Your task to perform on an android device: Play the last video I watched on Youtube Image 0: 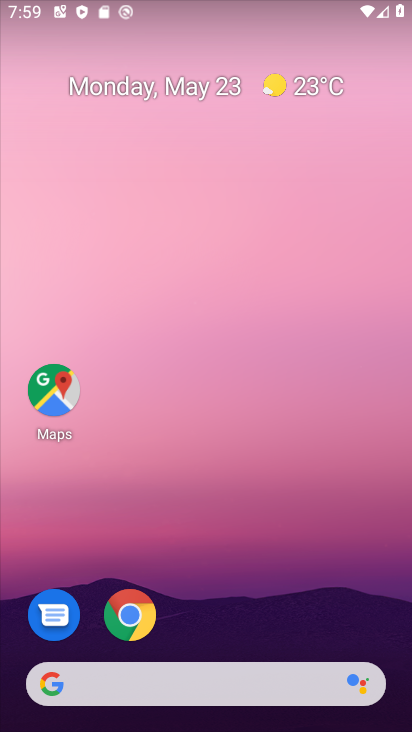
Step 0: drag from (255, 589) to (241, 151)
Your task to perform on an android device: Play the last video I watched on Youtube Image 1: 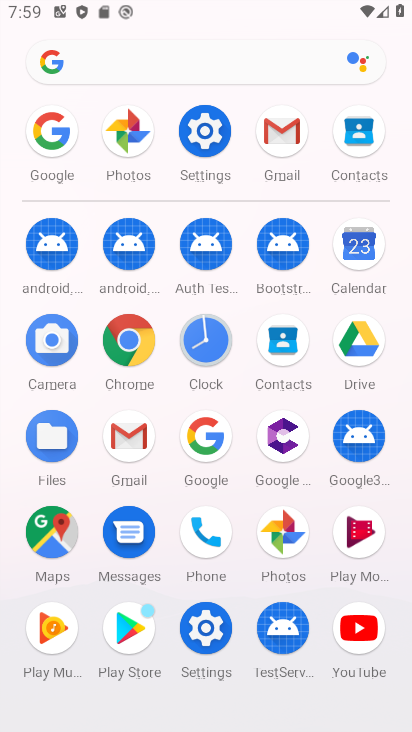
Step 1: click (359, 632)
Your task to perform on an android device: Play the last video I watched on Youtube Image 2: 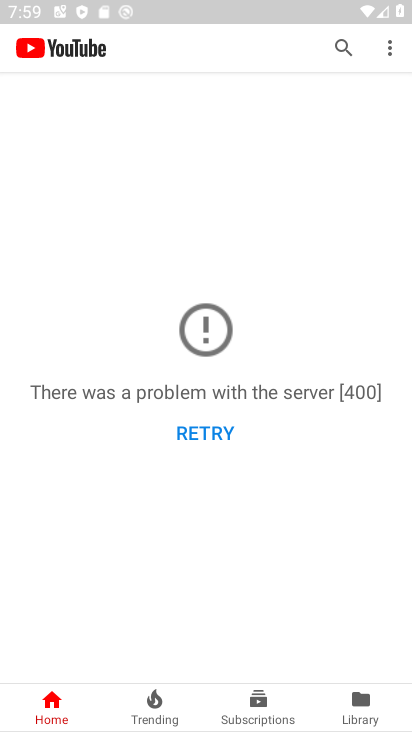
Step 2: click (202, 432)
Your task to perform on an android device: Play the last video I watched on Youtube Image 3: 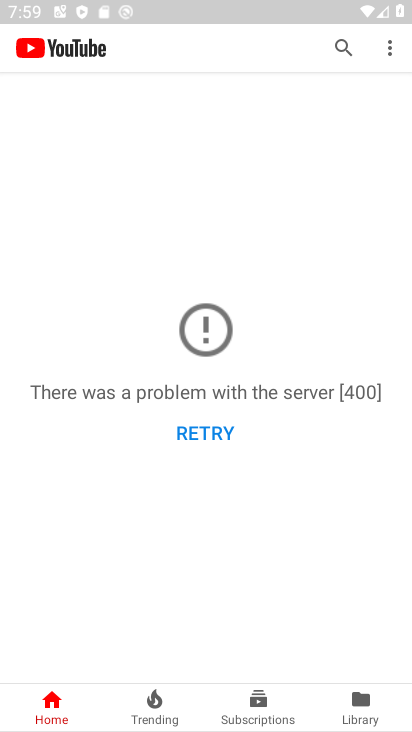
Step 3: task complete